Your task to perform on an android device: toggle priority inbox in the gmail app Image 0: 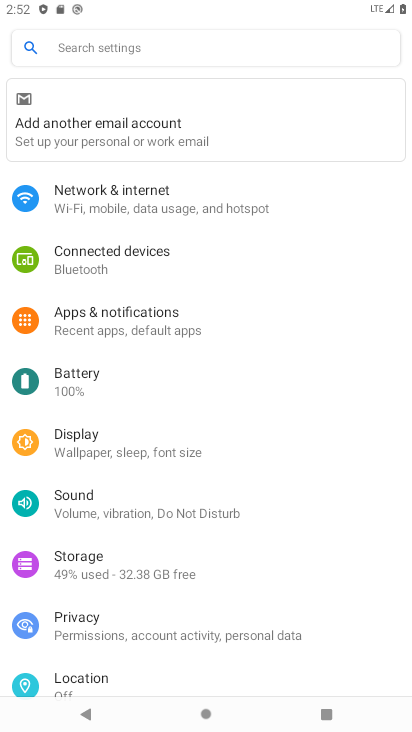
Step 0: press home button
Your task to perform on an android device: toggle priority inbox in the gmail app Image 1: 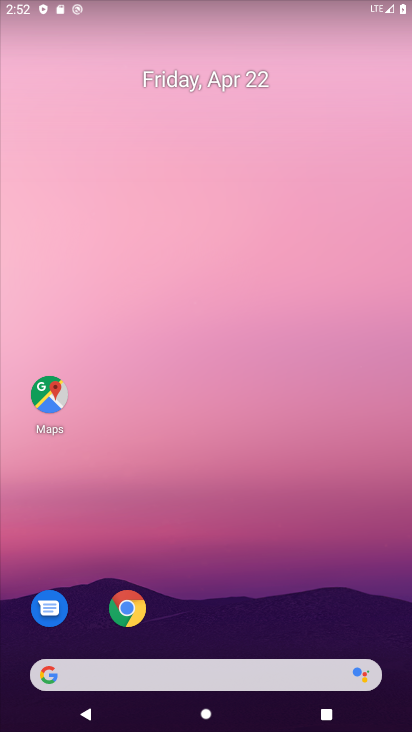
Step 1: drag from (273, 618) to (160, 196)
Your task to perform on an android device: toggle priority inbox in the gmail app Image 2: 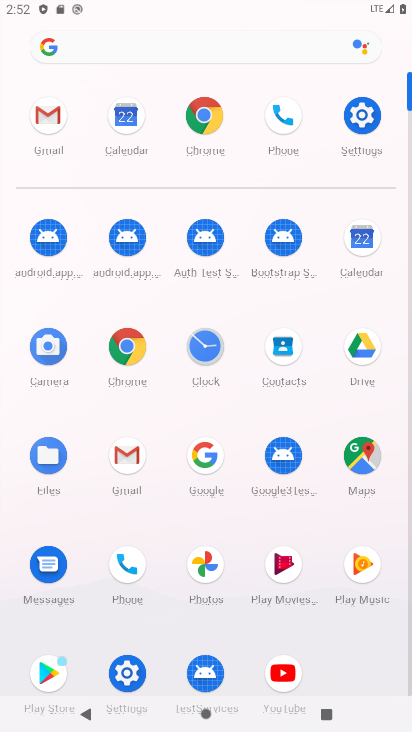
Step 2: click (48, 134)
Your task to perform on an android device: toggle priority inbox in the gmail app Image 3: 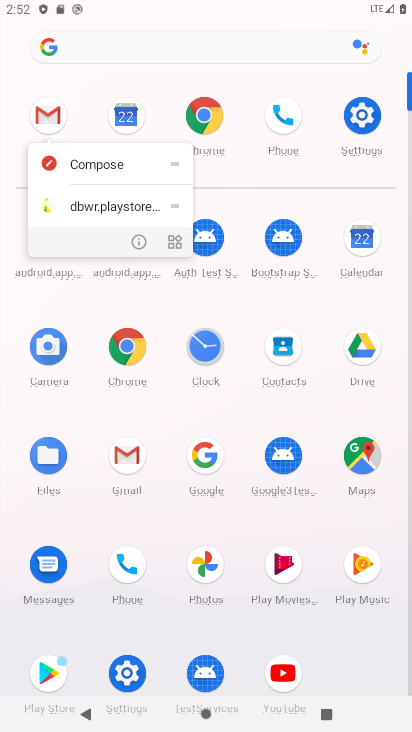
Step 3: click (48, 134)
Your task to perform on an android device: toggle priority inbox in the gmail app Image 4: 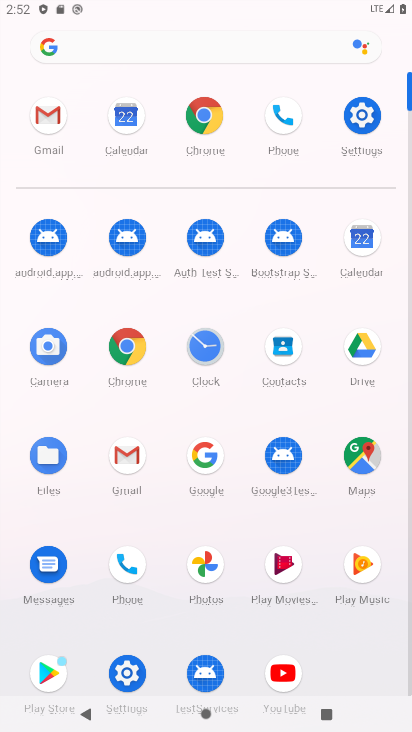
Step 4: click (48, 119)
Your task to perform on an android device: toggle priority inbox in the gmail app Image 5: 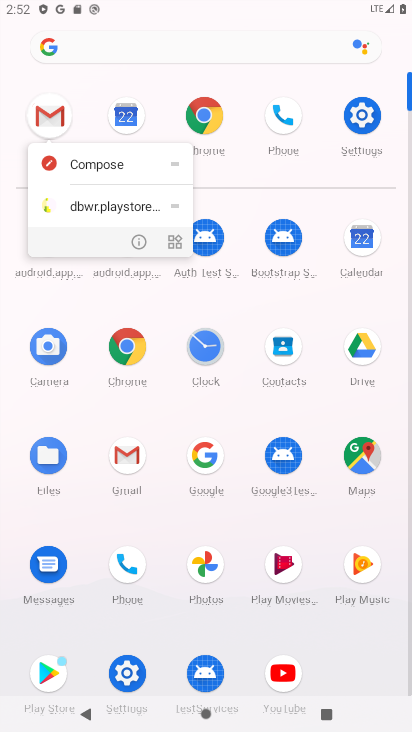
Step 5: click (47, 116)
Your task to perform on an android device: toggle priority inbox in the gmail app Image 6: 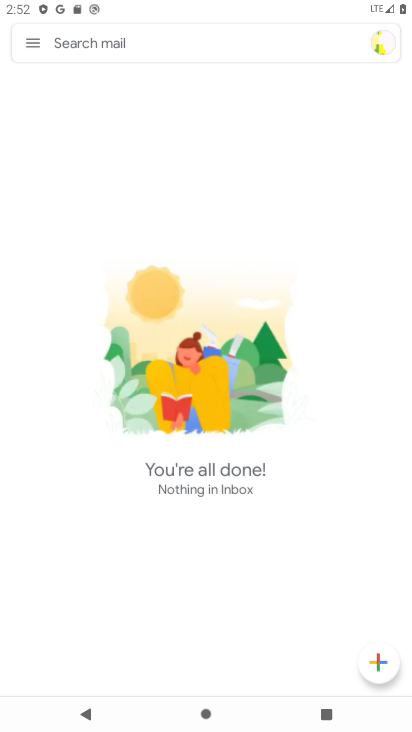
Step 6: click (47, 116)
Your task to perform on an android device: toggle priority inbox in the gmail app Image 7: 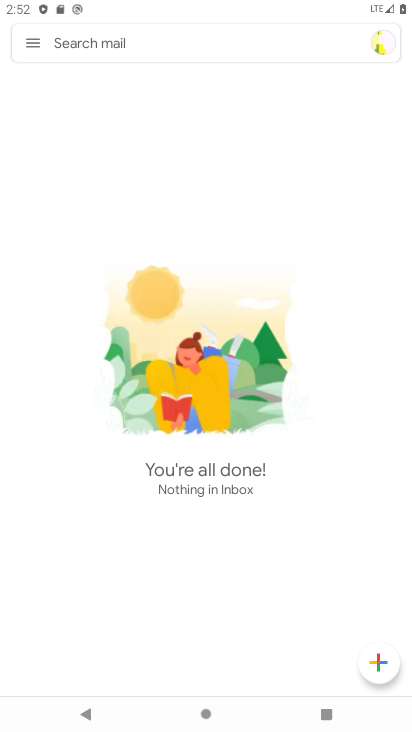
Step 7: click (38, 50)
Your task to perform on an android device: toggle priority inbox in the gmail app Image 8: 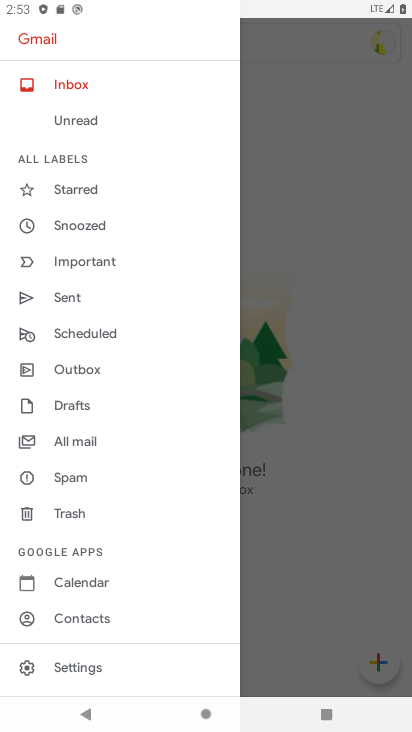
Step 8: click (89, 660)
Your task to perform on an android device: toggle priority inbox in the gmail app Image 9: 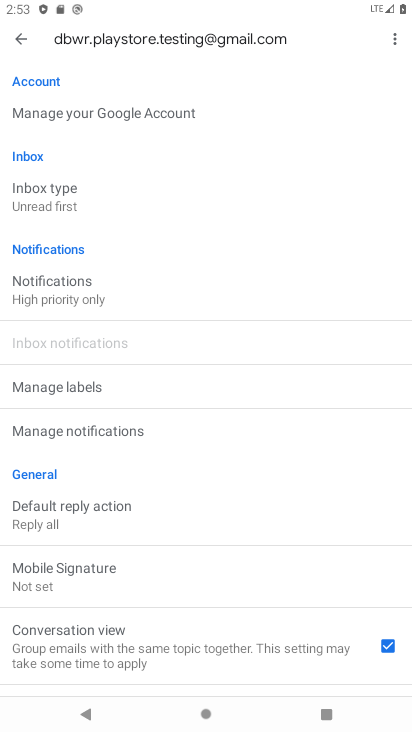
Step 9: drag from (202, 462) to (228, 374)
Your task to perform on an android device: toggle priority inbox in the gmail app Image 10: 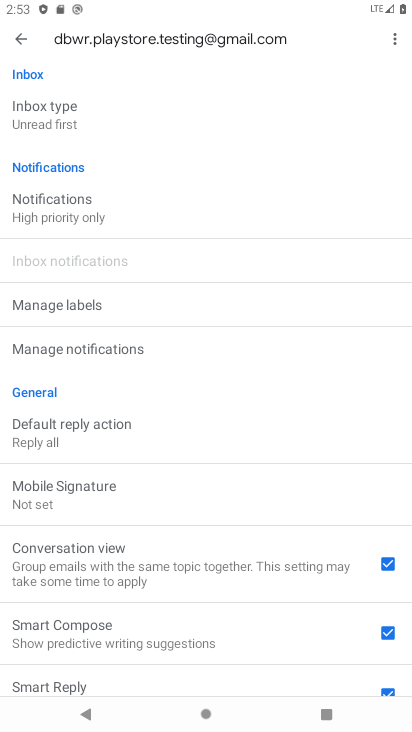
Step 10: click (74, 103)
Your task to perform on an android device: toggle priority inbox in the gmail app Image 11: 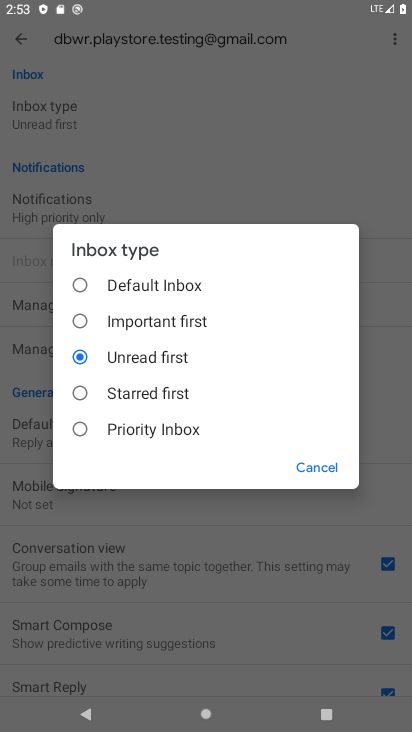
Step 11: click (164, 433)
Your task to perform on an android device: toggle priority inbox in the gmail app Image 12: 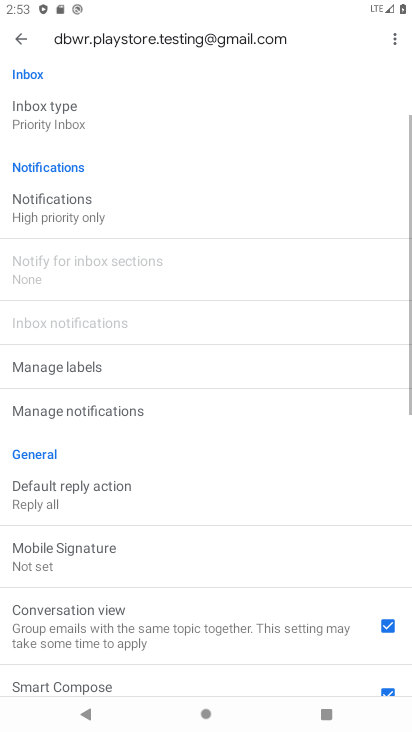
Step 12: drag from (74, 208) to (54, 382)
Your task to perform on an android device: toggle priority inbox in the gmail app Image 13: 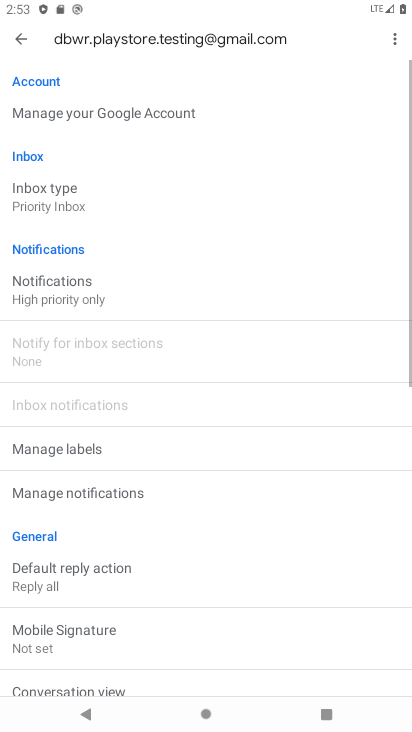
Step 13: click (83, 197)
Your task to perform on an android device: toggle priority inbox in the gmail app Image 14: 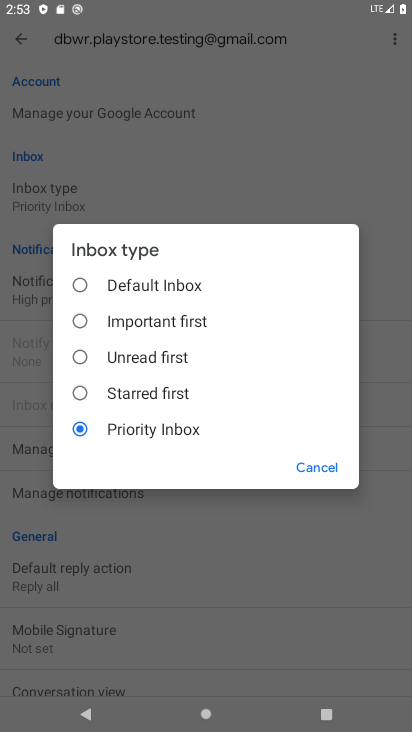
Step 14: task complete